Your task to perform on an android device: Search for hotels in NYC Image 0: 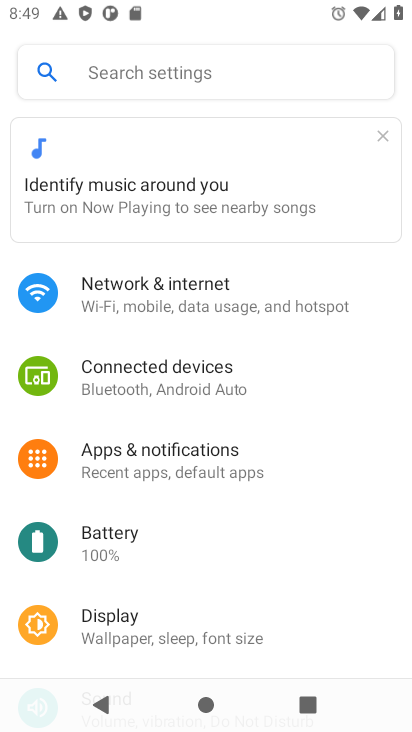
Step 0: press home button
Your task to perform on an android device: Search for hotels in NYC Image 1: 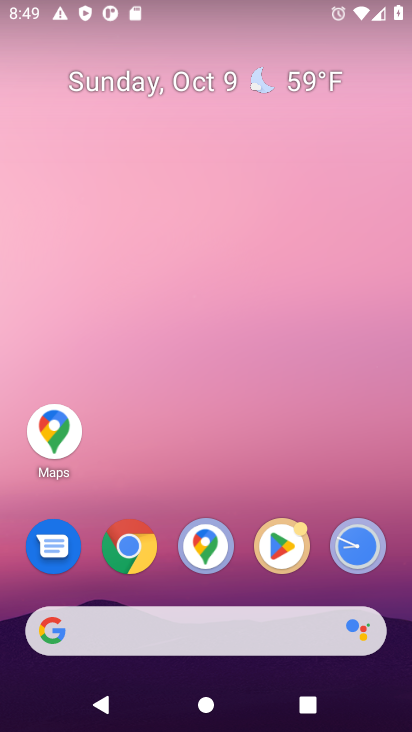
Step 1: click (132, 543)
Your task to perform on an android device: Search for hotels in NYC Image 2: 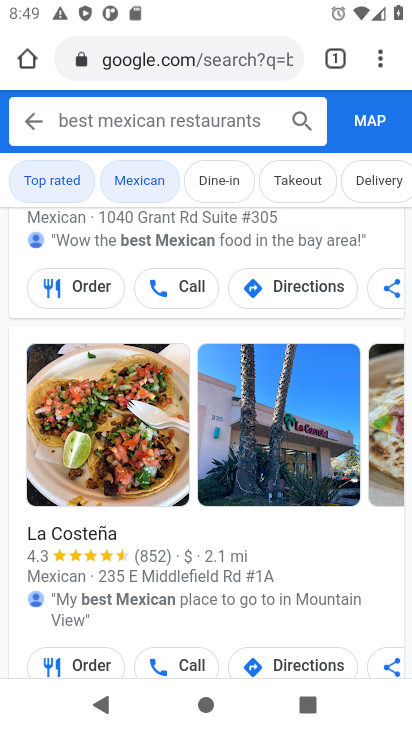
Step 2: click (202, 69)
Your task to perform on an android device: Search for hotels in NYC Image 3: 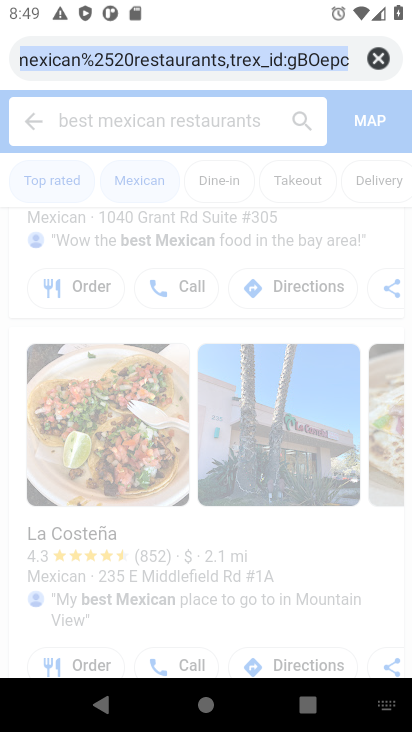
Step 3: click (228, 562)
Your task to perform on an android device: Search for hotels in NYC Image 4: 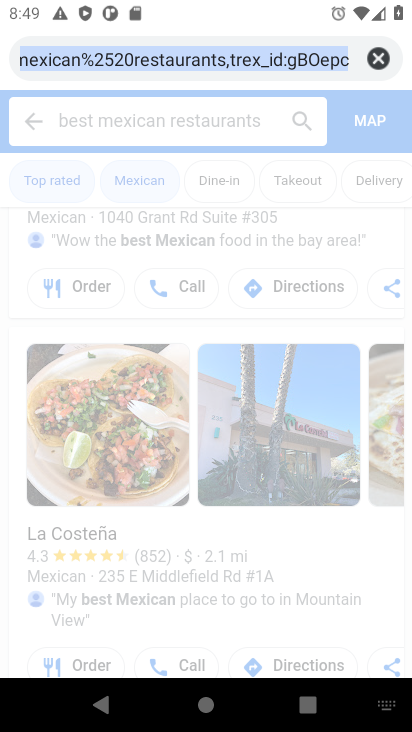
Step 4: type "hotels in nyc"
Your task to perform on an android device: Search for hotels in NYC Image 5: 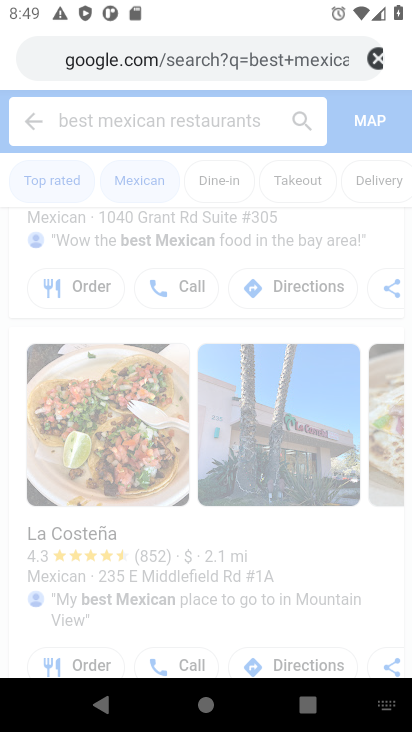
Step 5: click (219, 395)
Your task to perform on an android device: Search for hotels in NYC Image 6: 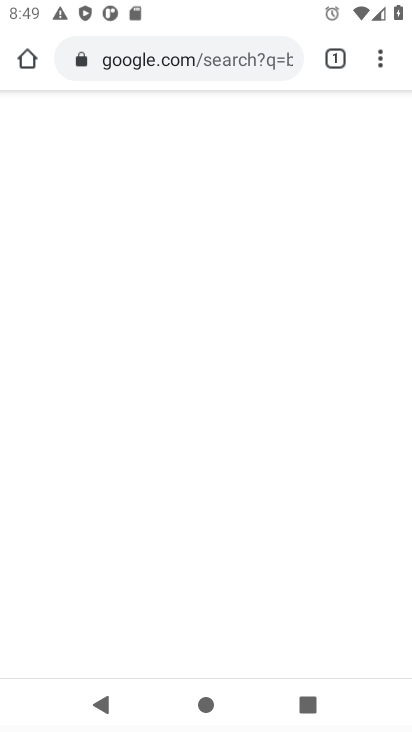
Step 6: click (183, 60)
Your task to perform on an android device: Search for hotels in NYC Image 7: 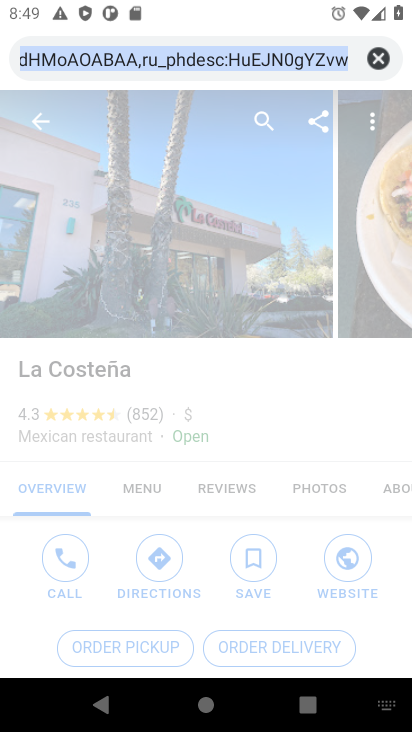
Step 7: type "hotels in nyc"
Your task to perform on an android device: Search for hotels in NYC Image 8: 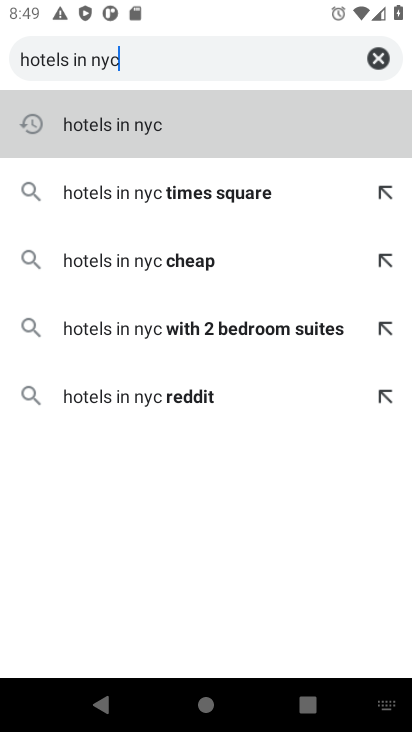
Step 8: type ""
Your task to perform on an android device: Search for hotels in NYC Image 9: 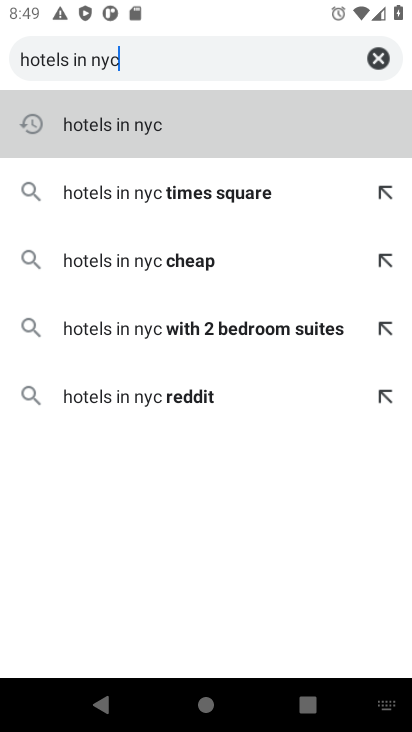
Step 9: press enter
Your task to perform on an android device: Search for hotels in NYC Image 10: 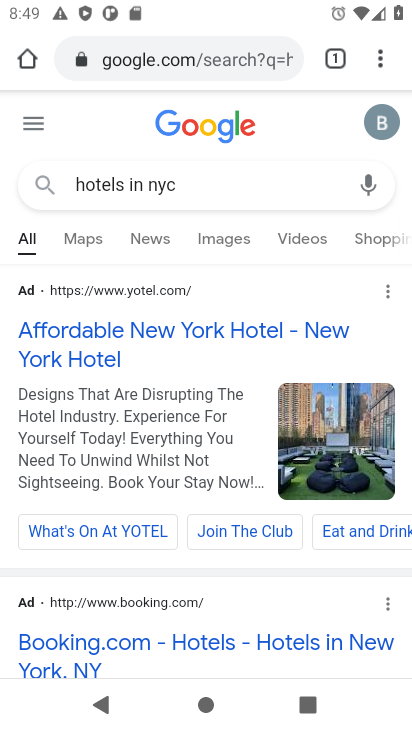
Step 10: drag from (163, 618) to (165, 511)
Your task to perform on an android device: Search for hotels in NYC Image 11: 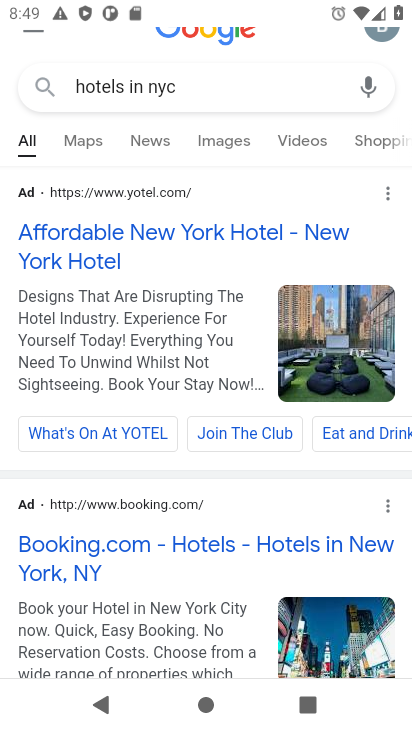
Step 11: click (78, 558)
Your task to perform on an android device: Search for hotels in NYC Image 12: 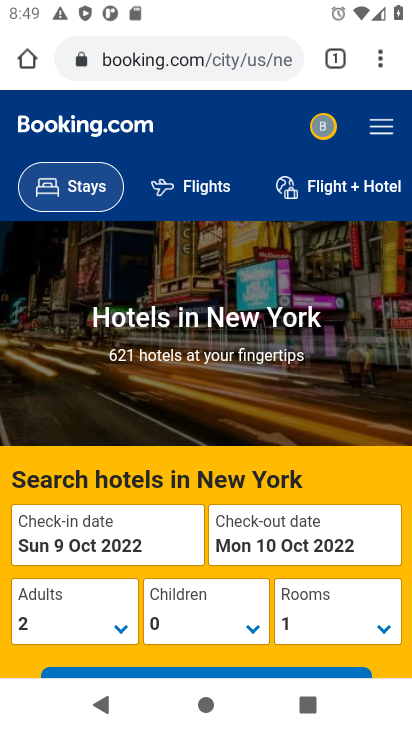
Step 12: drag from (200, 558) to (193, 342)
Your task to perform on an android device: Search for hotels in NYC Image 13: 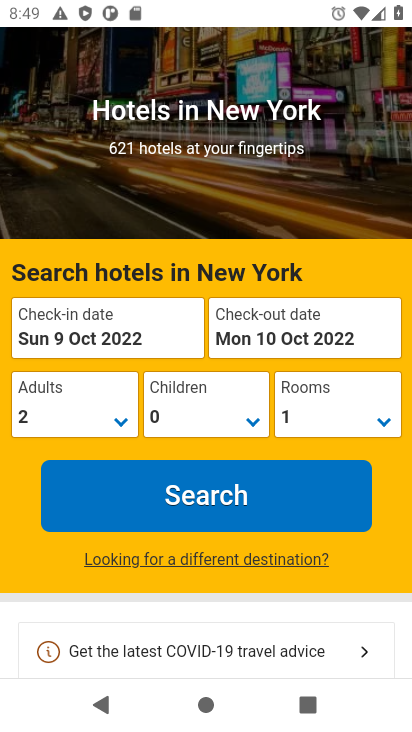
Step 13: click (188, 486)
Your task to perform on an android device: Search for hotels in NYC Image 14: 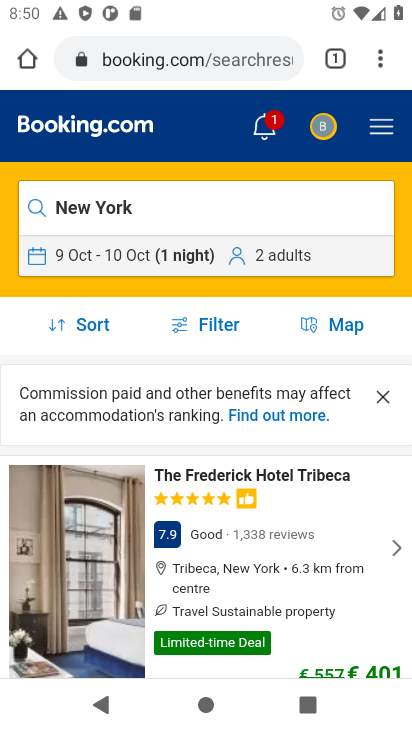
Step 14: task complete